Your task to perform on an android device: turn on sleep mode Image 0: 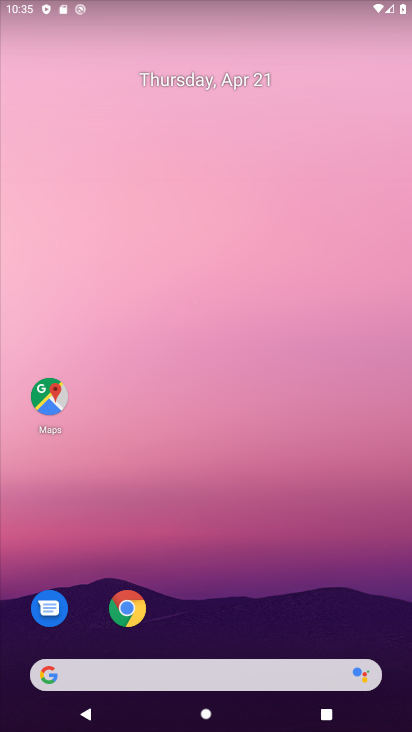
Step 0: drag from (229, 561) to (208, 6)
Your task to perform on an android device: turn on sleep mode Image 1: 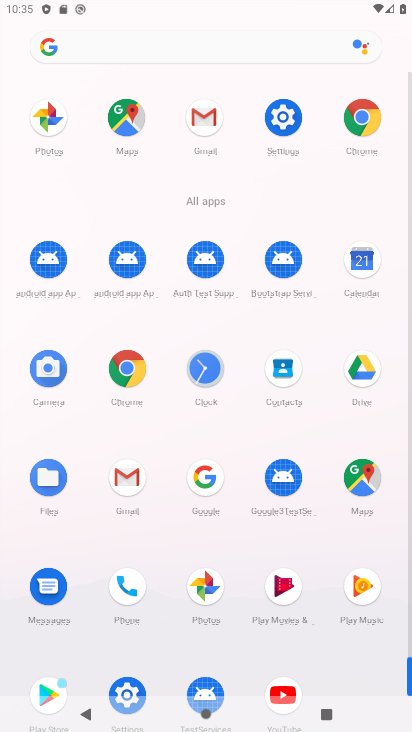
Step 1: click (284, 116)
Your task to perform on an android device: turn on sleep mode Image 2: 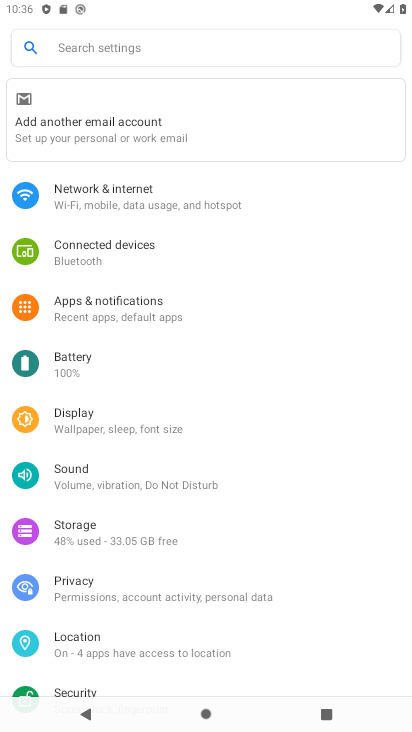
Step 2: click (145, 430)
Your task to perform on an android device: turn on sleep mode Image 3: 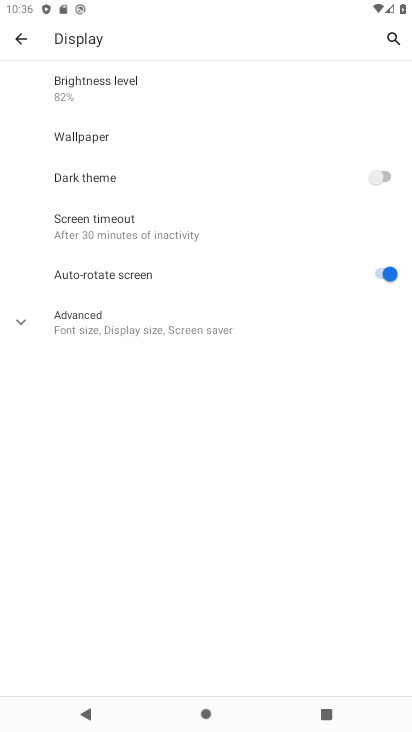
Step 3: click (192, 329)
Your task to perform on an android device: turn on sleep mode Image 4: 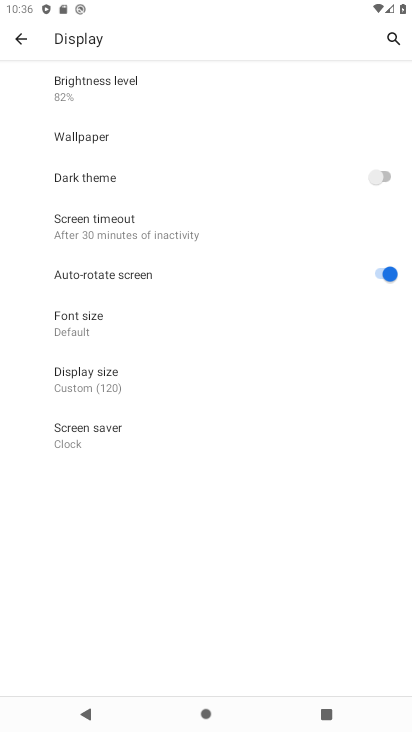
Step 4: task complete